Your task to perform on an android device: What's on my calendar tomorrow? Image 0: 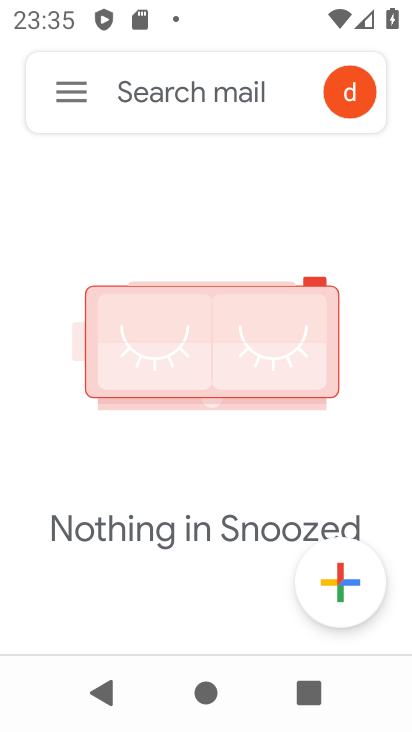
Step 0: press home button
Your task to perform on an android device: What's on my calendar tomorrow? Image 1: 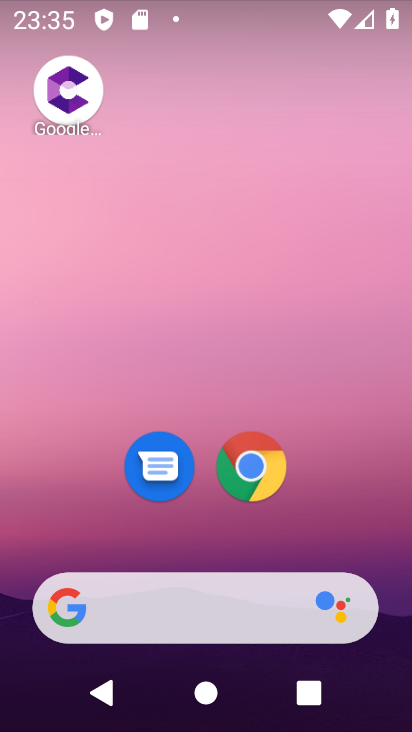
Step 1: drag from (294, 533) to (247, 7)
Your task to perform on an android device: What's on my calendar tomorrow? Image 2: 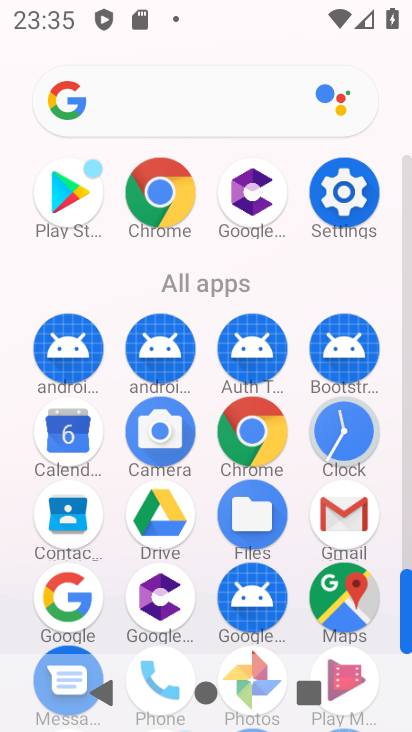
Step 2: click (59, 438)
Your task to perform on an android device: What's on my calendar tomorrow? Image 3: 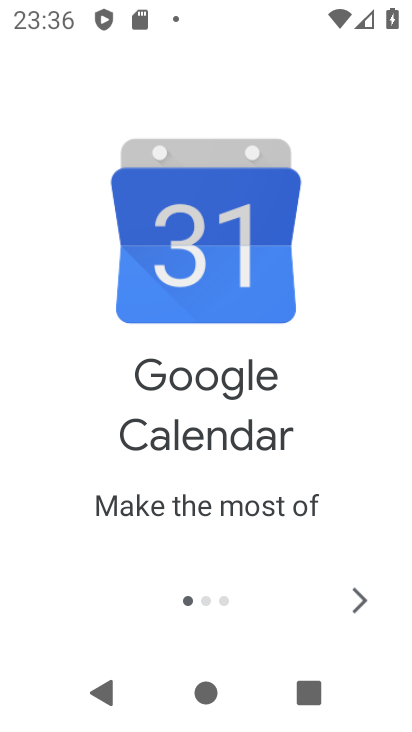
Step 3: click (357, 610)
Your task to perform on an android device: What's on my calendar tomorrow? Image 4: 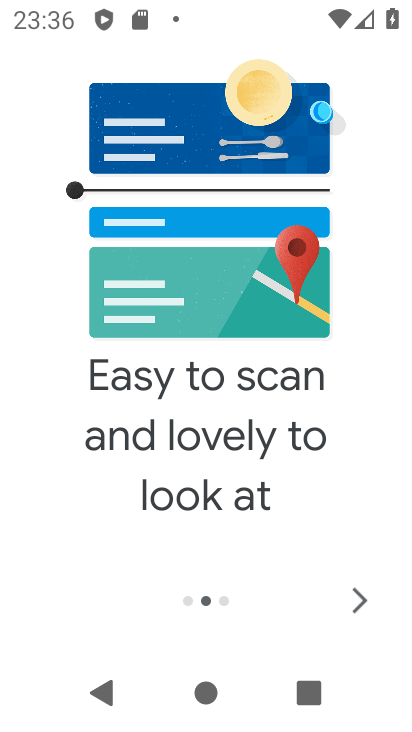
Step 4: click (352, 584)
Your task to perform on an android device: What's on my calendar tomorrow? Image 5: 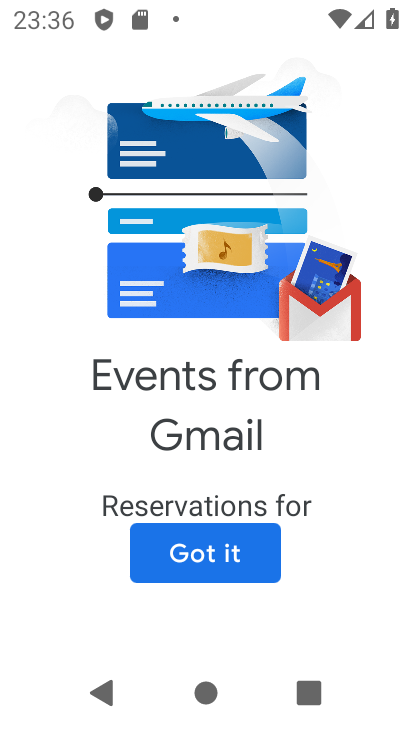
Step 5: click (240, 543)
Your task to perform on an android device: What's on my calendar tomorrow? Image 6: 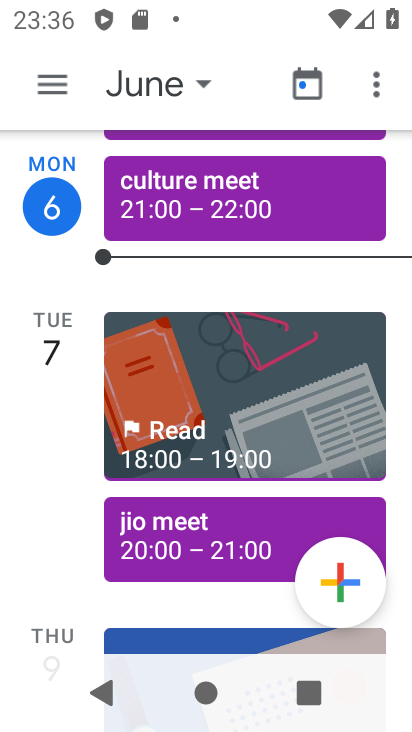
Step 6: click (159, 69)
Your task to perform on an android device: What's on my calendar tomorrow? Image 7: 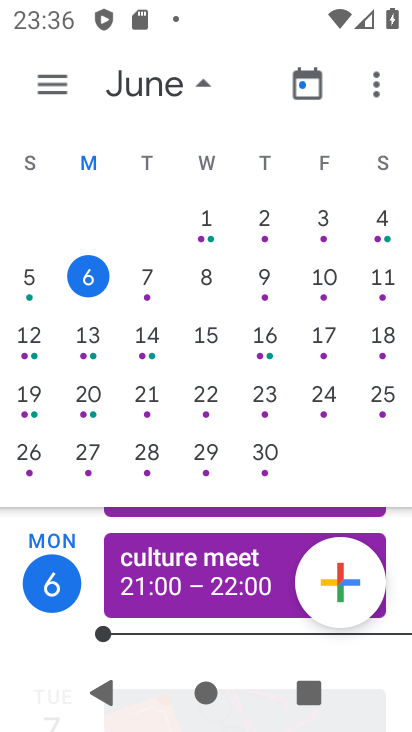
Step 7: click (135, 274)
Your task to perform on an android device: What's on my calendar tomorrow? Image 8: 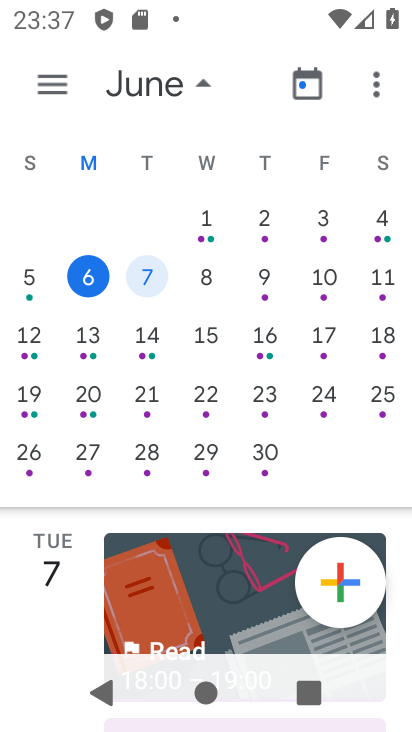
Step 8: task complete